Your task to perform on an android device: toggle improve location accuracy Image 0: 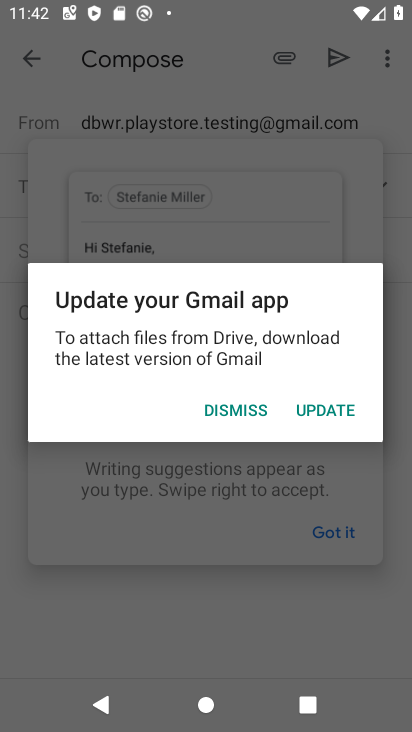
Step 0: press home button
Your task to perform on an android device: toggle improve location accuracy Image 1: 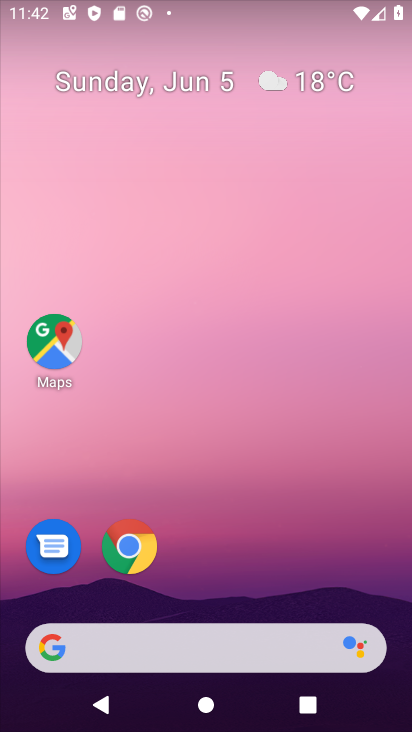
Step 1: drag from (270, 585) to (257, 171)
Your task to perform on an android device: toggle improve location accuracy Image 2: 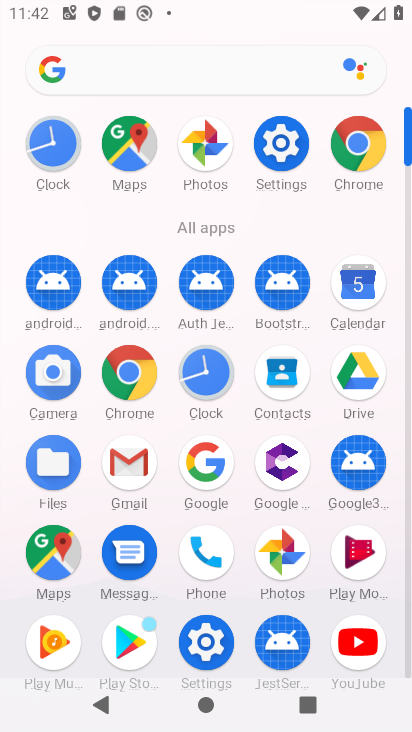
Step 2: click (269, 145)
Your task to perform on an android device: toggle improve location accuracy Image 3: 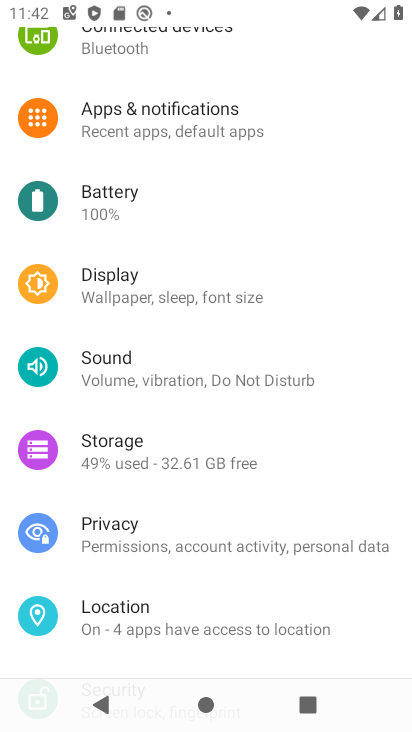
Step 3: click (186, 612)
Your task to perform on an android device: toggle improve location accuracy Image 4: 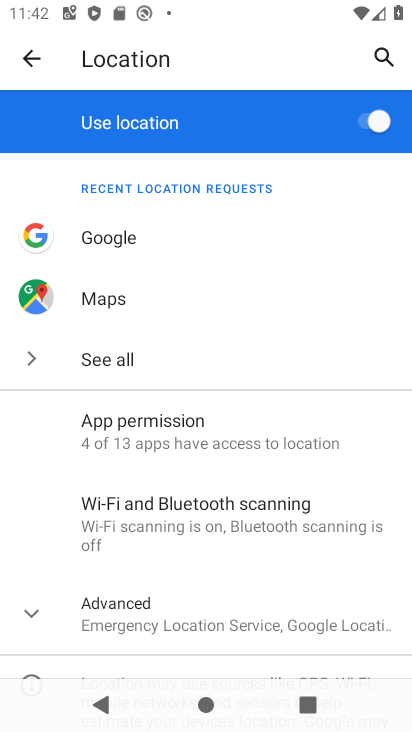
Step 4: drag from (340, 408) to (309, 203)
Your task to perform on an android device: toggle improve location accuracy Image 5: 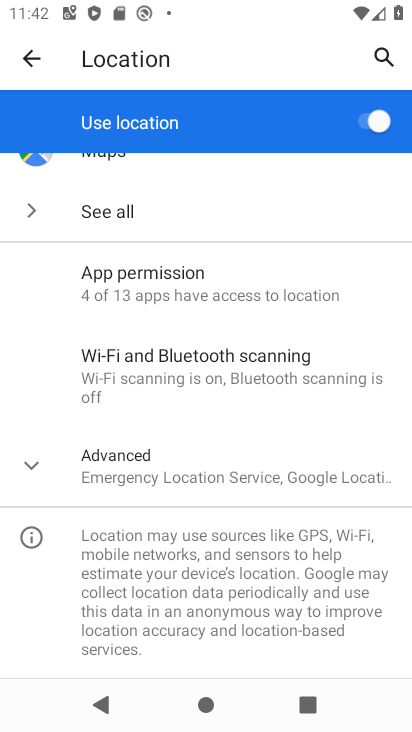
Step 5: click (22, 466)
Your task to perform on an android device: toggle improve location accuracy Image 6: 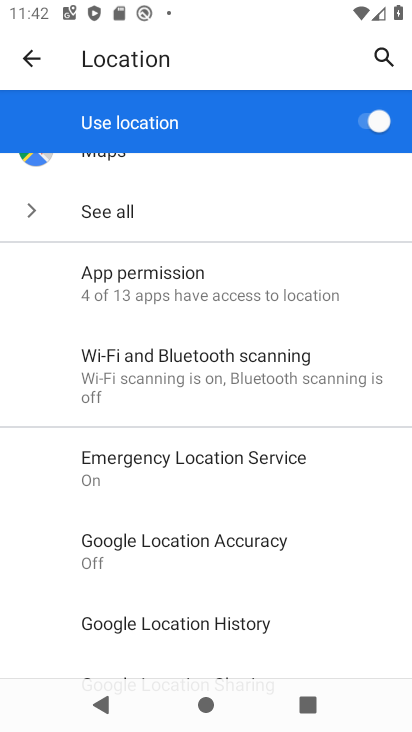
Step 6: click (100, 545)
Your task to perform on an android device: toggle improve location accuracy Image 7: 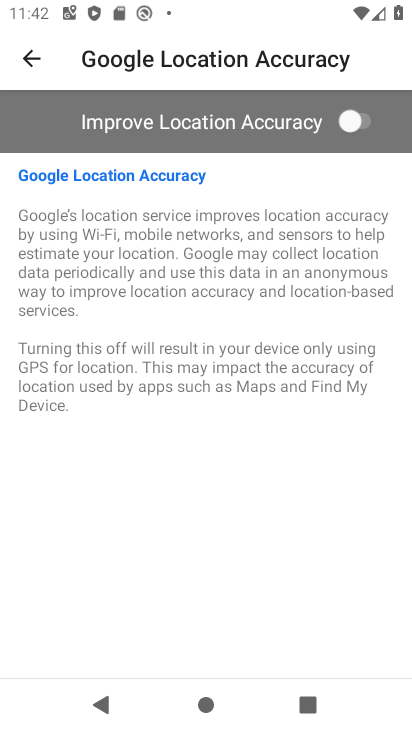
Step 7: click (374, 126)
Your task to perform on an android device: toggle improve location accuracy Image 8: 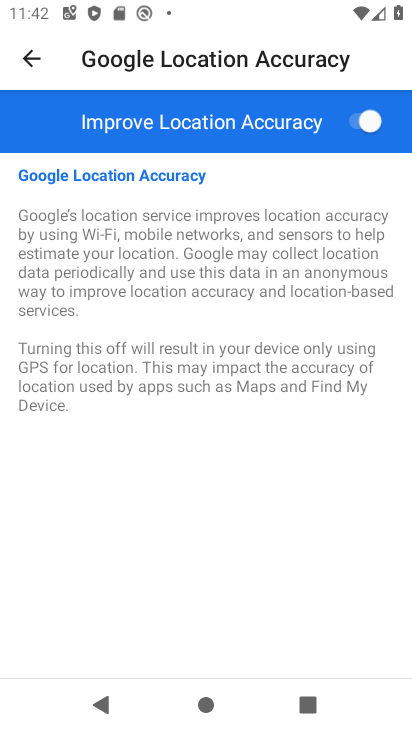
Step 8: task complete